Your task to perform on an android device: toggle notification dots Image 0: 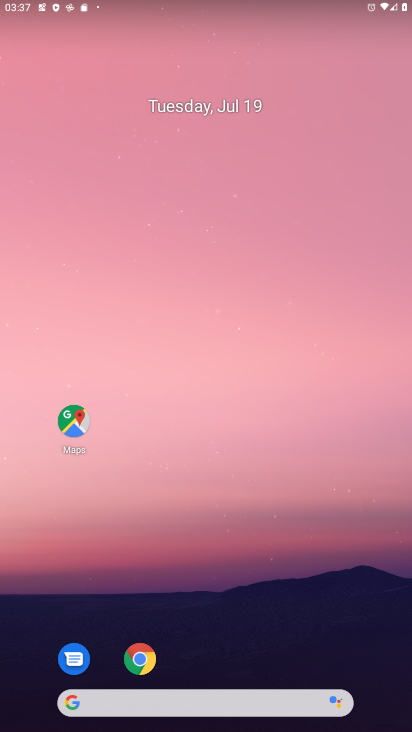
Step 0: press home button
Your task to perform on an android device: toggle notification dots Image 1: 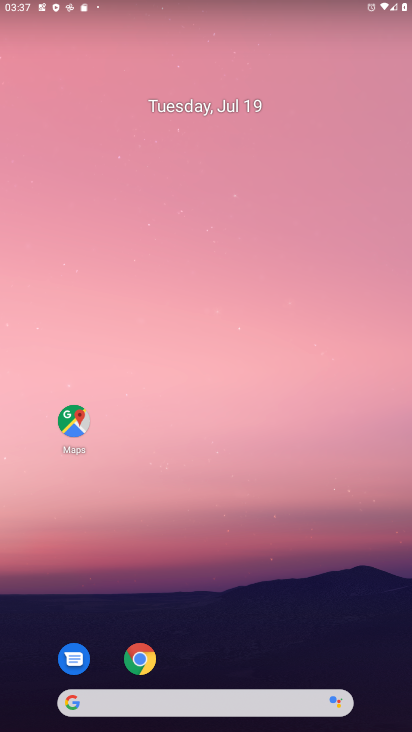
Step 1: drag from (325, 630) to (286, 96)
Your task to perform on an android device: toggle notification dots Image 2: 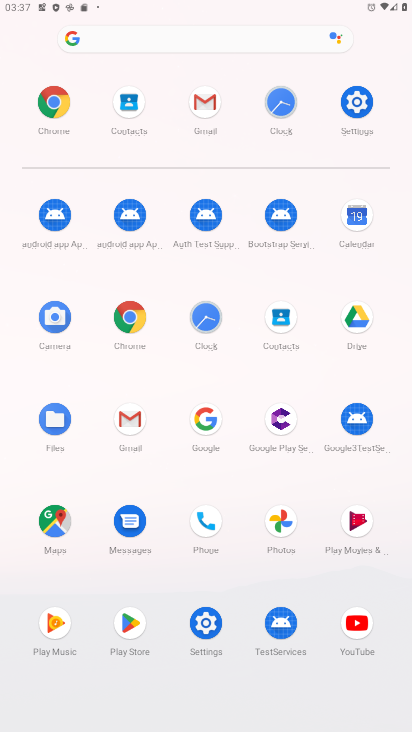
Step 2: click (200, 631)
Your task to perform on an android device: toggle notification dots Image 3: 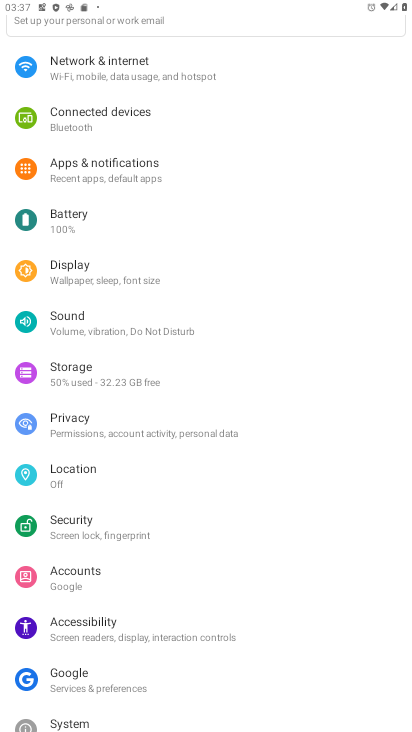
Step 3: click (123, 176)
Your task to perform on an android device: toggle notification dots Image 4: 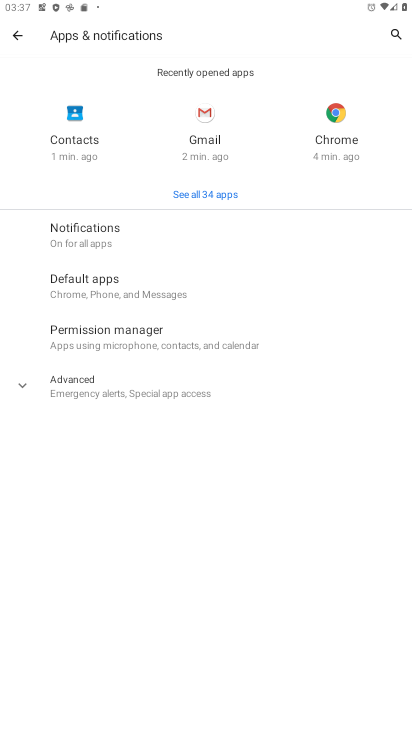
Step 4: click (121, 243)
Your task to perform on an android device: toggle notification dots Image 5: 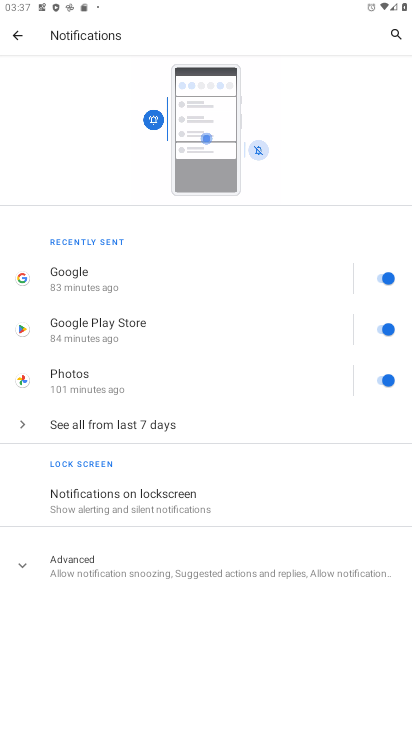
Step 5: click (85, 560)
Your task to perform on an android device: toggle notification dots Image 6: 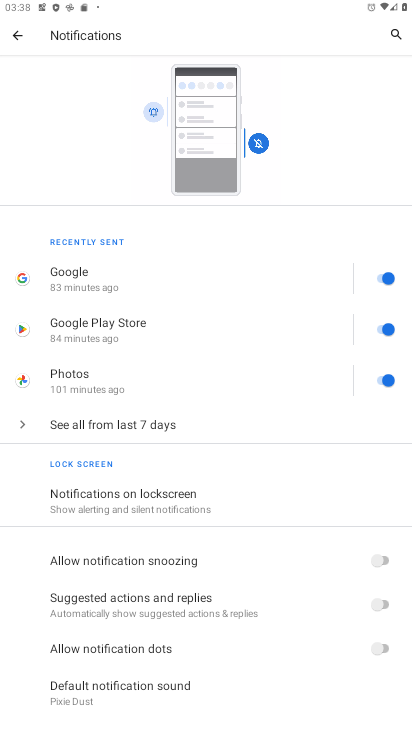
Step 6: click (145, 648)
Your task to perform on an android device: toggle notification dots Image 7: 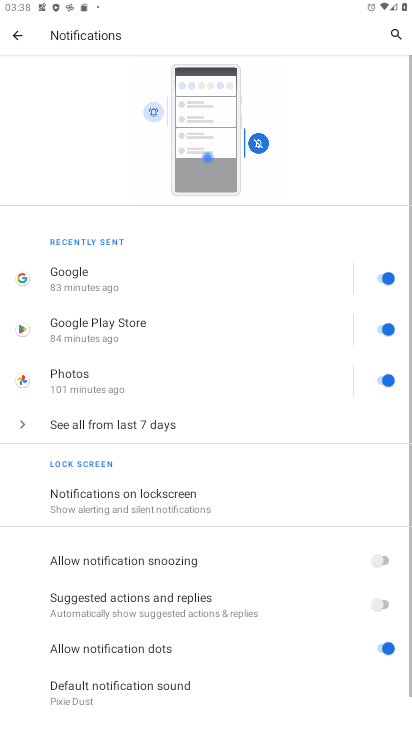
Step 7: task complete